Your task to perform on an android device: see tabs open on other devices in the chrome app Image 0: 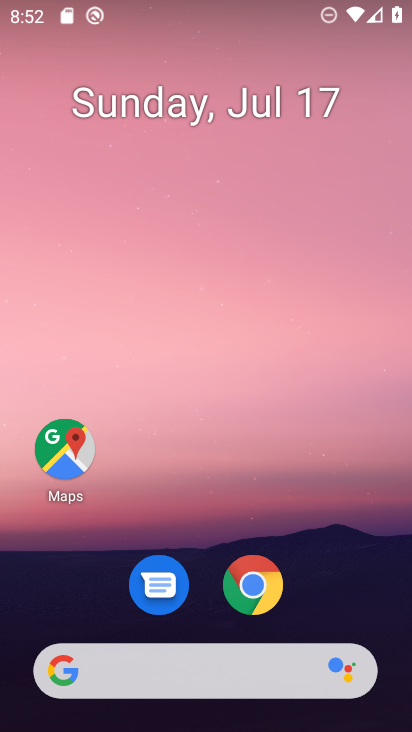
Step 0: press home button
Your task to perform on an android device: see tabs open on other devices in the chrome app Image 1: 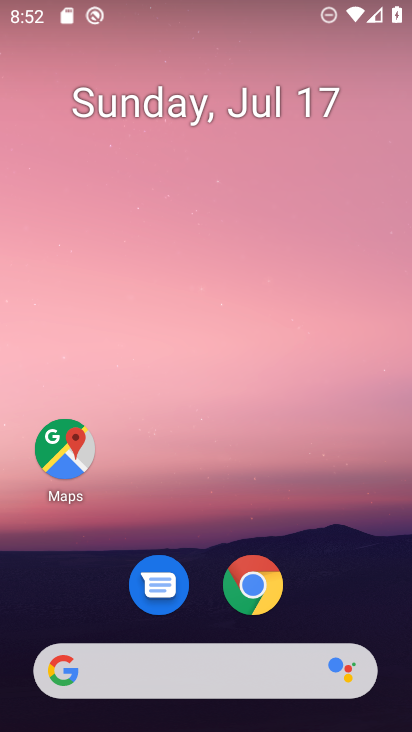
Step 1: click (258, 592)
Your task to perform on an android device: see tabs open on other devices in the chrome app Image 2: 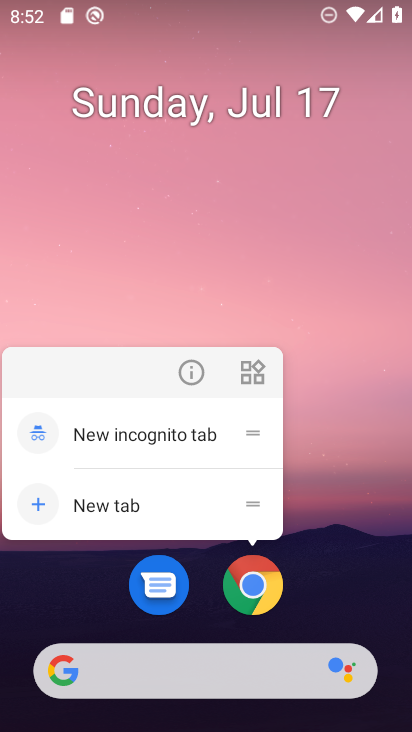
Step 2: click (258, 589)
Your task to perform on an android device: see tabs open on other devices in the chrome app Image 3: 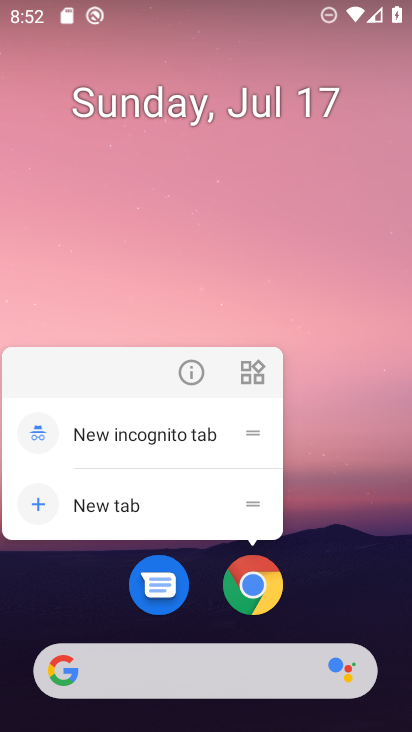
Step 3: click (258, 591)
Your task to perform on an android device: see tabs open on other devices in the chrome app Image 4: 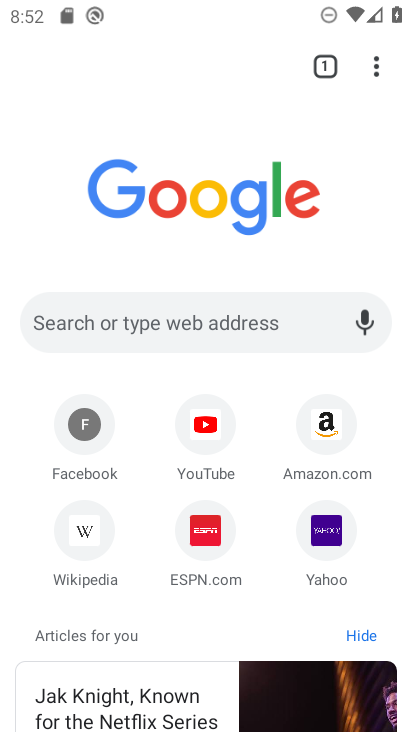
Step 4: task complete